Your task to perform on an android device: Open Google Maps and go to "Timeline" Image 0: 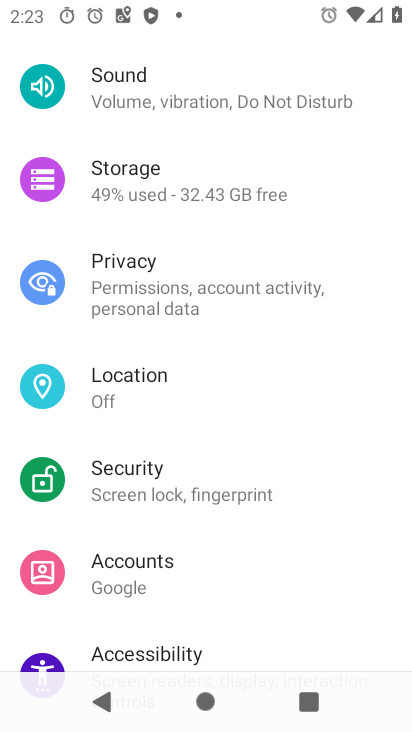
Step 0: press home button
Your task to perform on an android device: Open Google Maps and go to "Timeline" Image 1: 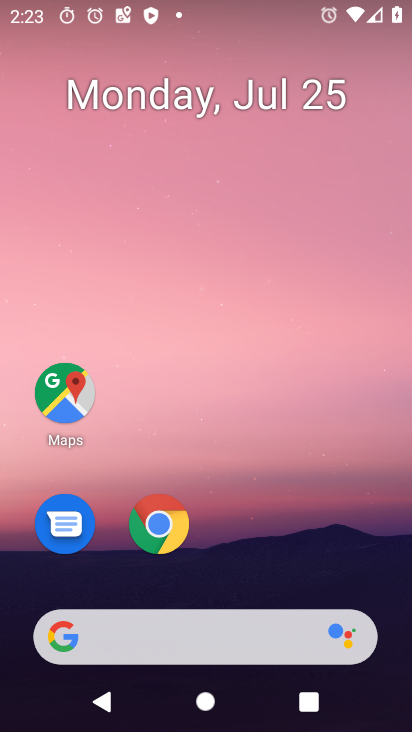
Step 1: drag from (220, 569) to (261, 58)
Your task to perform on an android device: Open Google Maps and go to "Timeline" Image 2: 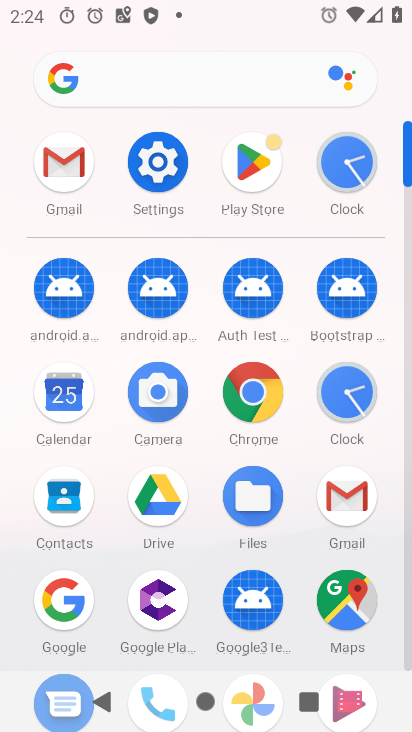
Step 2: click (337, 593)
Your task to perform on an android device: Open Google Maps and go to "Timeline" Image 3: 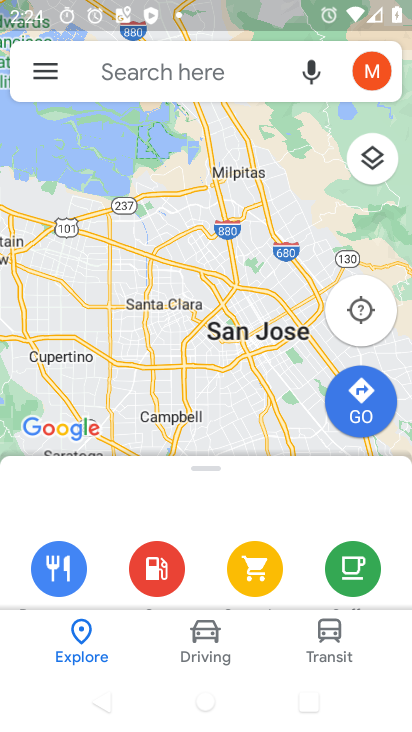
Step 3: click (37, 73)
Your task to perform on an android device: Open Google Maps and go to "Timeline" Image 4: 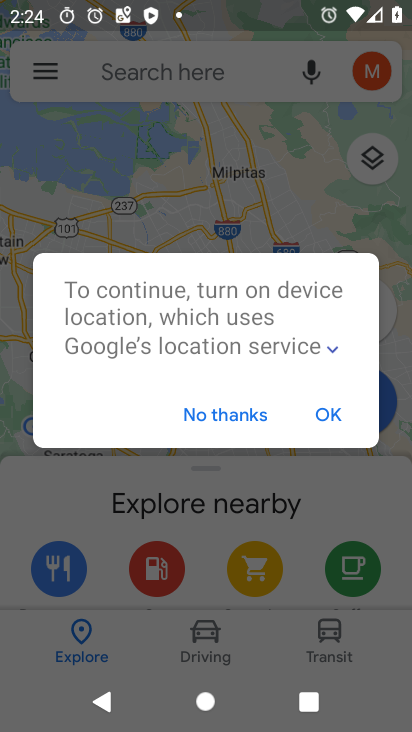
Step 4: click (343, 418)
Your task to perform on an android device: Open Google Maps and go to "Timeline" Image 5: 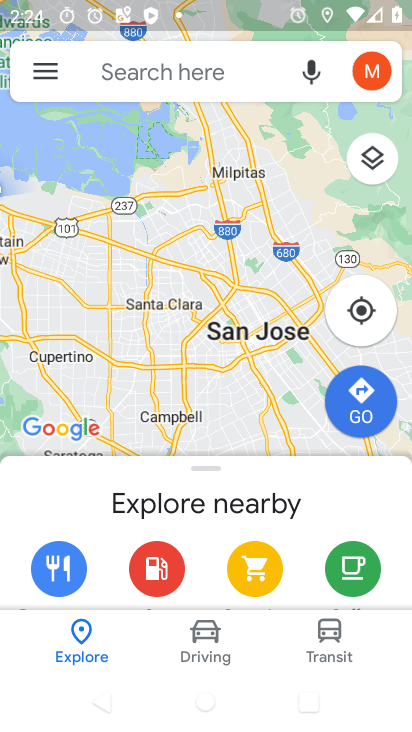
Step 5: click (41, 73)
Your task to perform on an android device: Open Google Maps and go to "Timeline" Image 6: 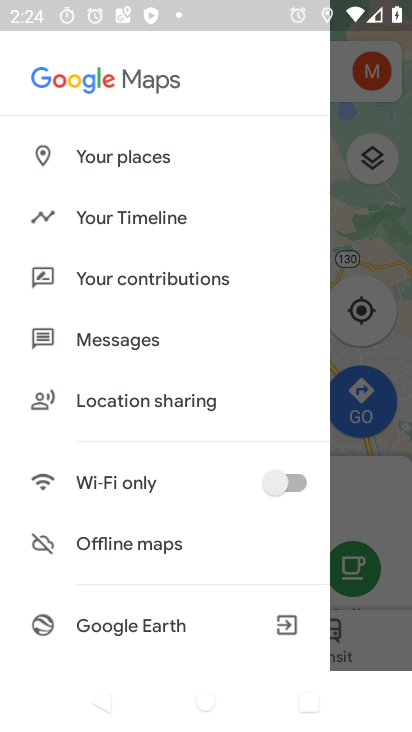
Step 6: click (126, 214)
Your task to perform on an android device: Open Google Maps and go to "Timeline" Image 7: 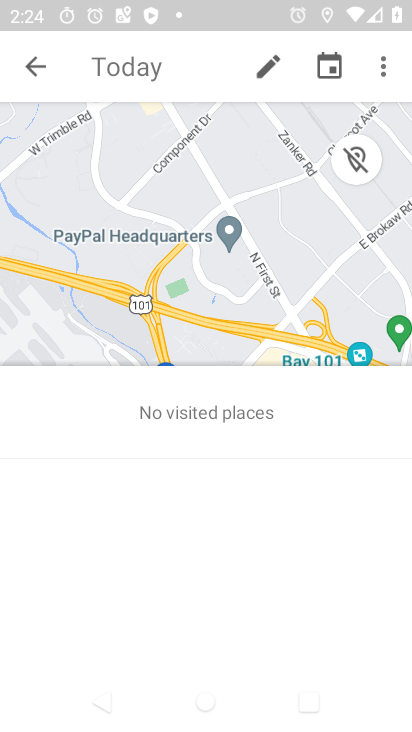
Step 7: task complete